Your task to perform on an android device: Empty the shopping cart on costco.com. Search for logitech g pro on costco.com, select the first entry, and add it to the cart. Image 0: 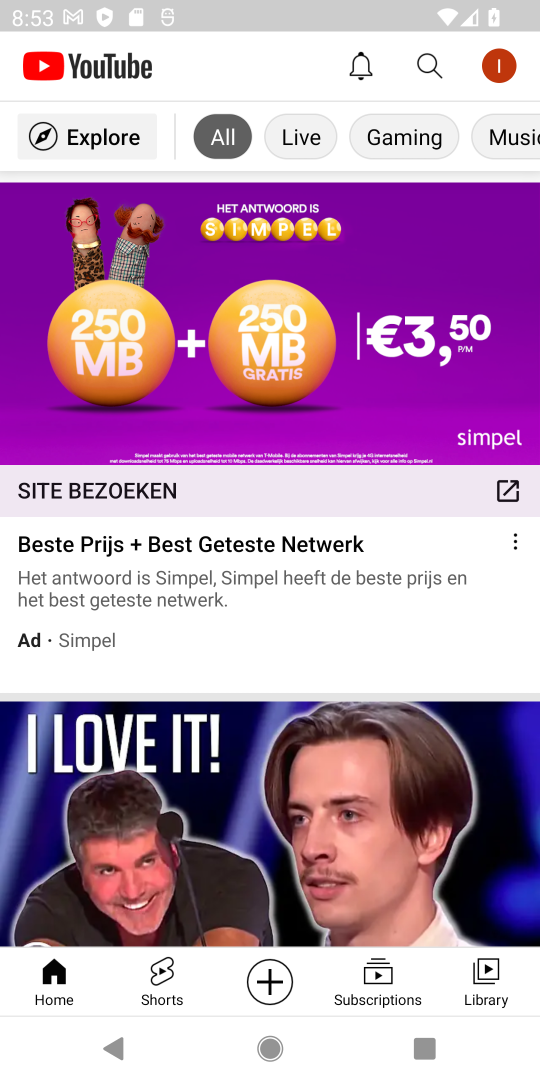
Step 0: press home button
Your task to perform on an android device: Empty the shopping cart on costco.com. Search for logitech g pro on costco.com, select the first entry, and add it to the cart. Image 1: 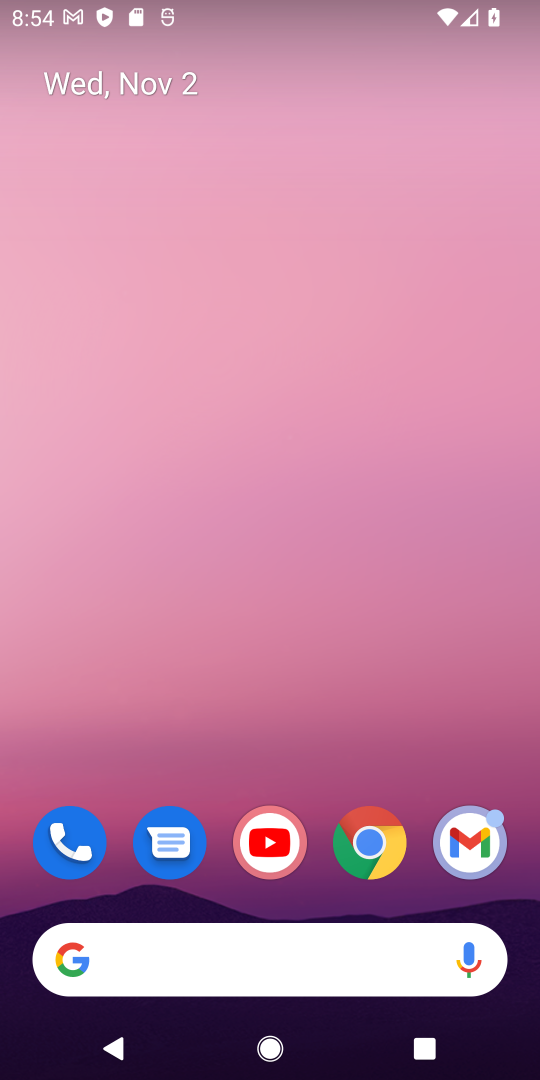
Step 1: drag from (210, 773) to (304, 159)
Your task to perform on an android device: Empty the shopping cart on costco.com. Search for logitech g pro on costco.com, select the first entry, and add it to the cart. Image 2: 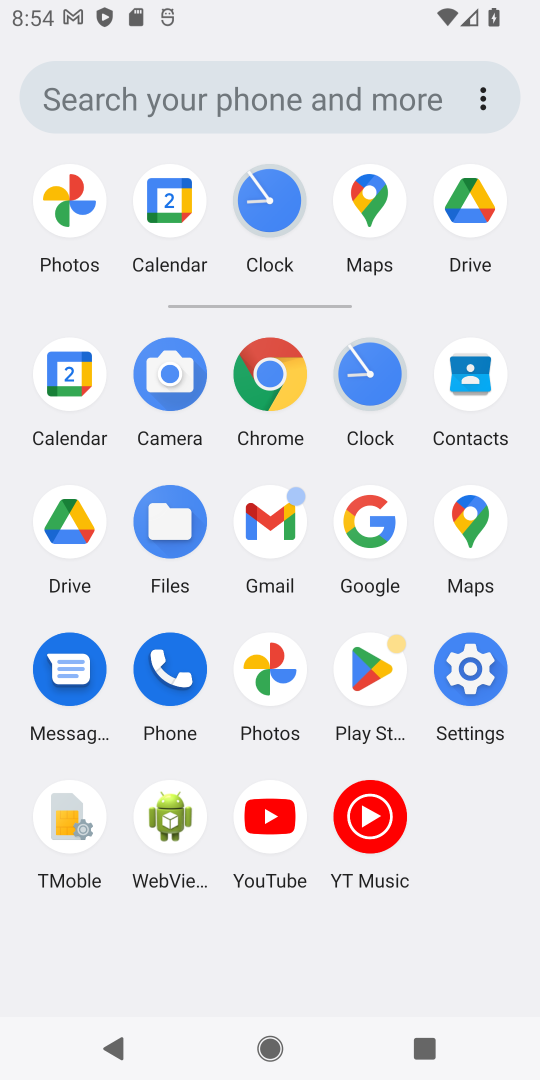
Step 2: click (359, 511)
Your task to perform on an android device: Empty the shopping cart on costco.com. Search for logitech g pro on costco.com, select the first entry, and add it to the cart. Image 3: 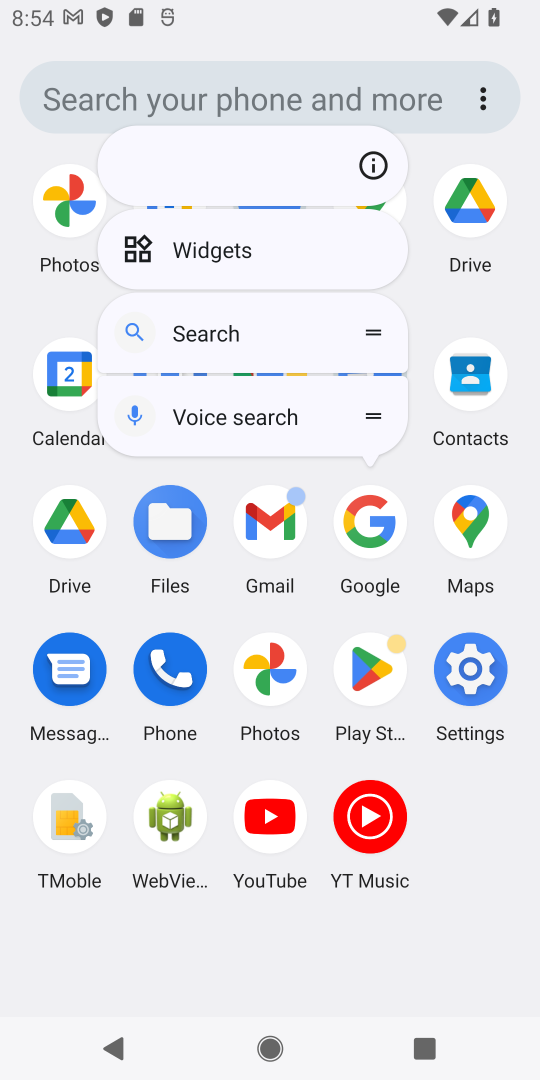
Step 3: click (373, 530)
Your task to perform on an android device: Empty the shopping cart on costco.com. Search for logitech g pro on costco.com, select the first entry, and add it to the cart. Image 4: 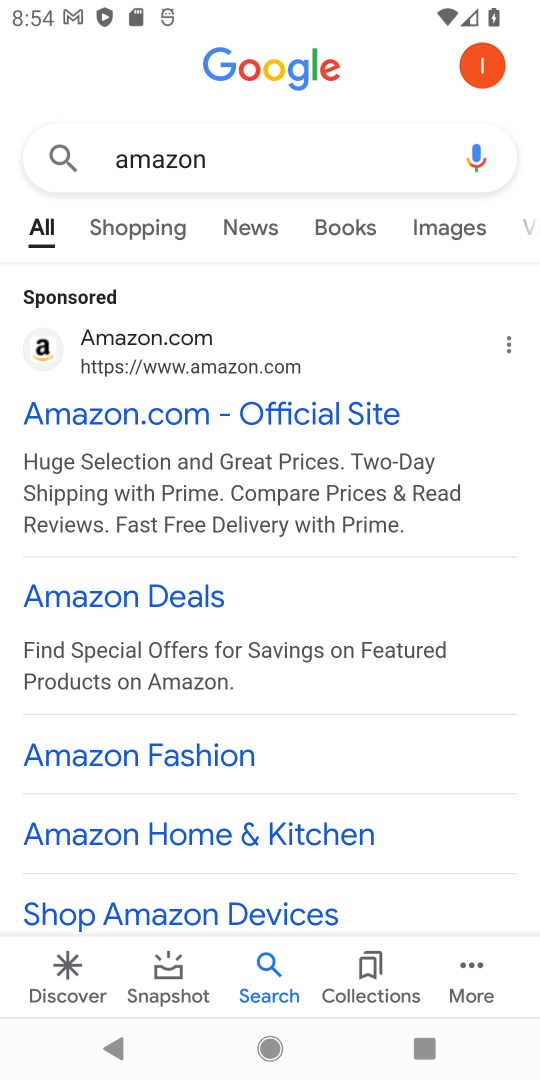
Step 4: click (236, 180)
Your task to perform on an android device: Empty the shopping cart on costco.com. Search for logitech g pro on costco.com, select the first entry, and add it to the cart. Image 5: 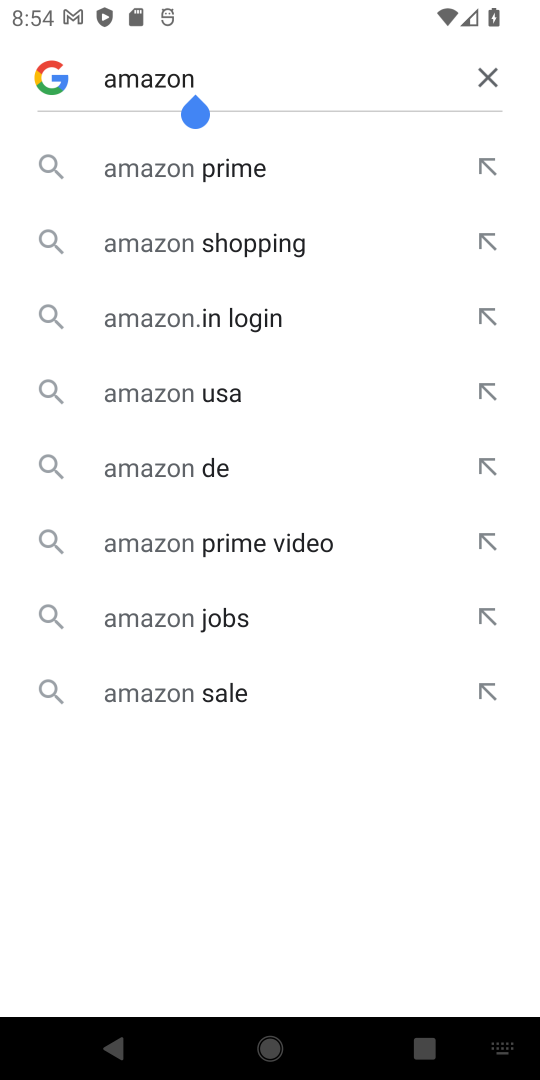
Step 5: click (471, 73)
Your task to perform on an android device: Empty the shopping cart on costco.com. Search for logitech g pro on costco.com, select the first entry, and add it to the cart. Image 6: 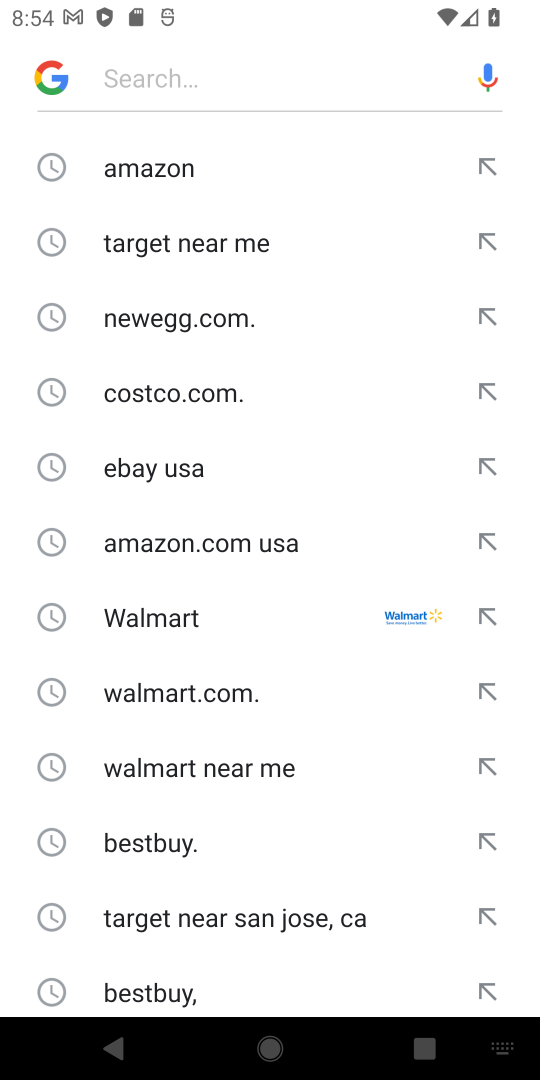
Step 6: click (157, 399)
Your task to perform on an android device: Empty the shopping cart on costco.com. Search for logitech g pro on costco.com, select the first entry, and add it to the cart. Image 7: 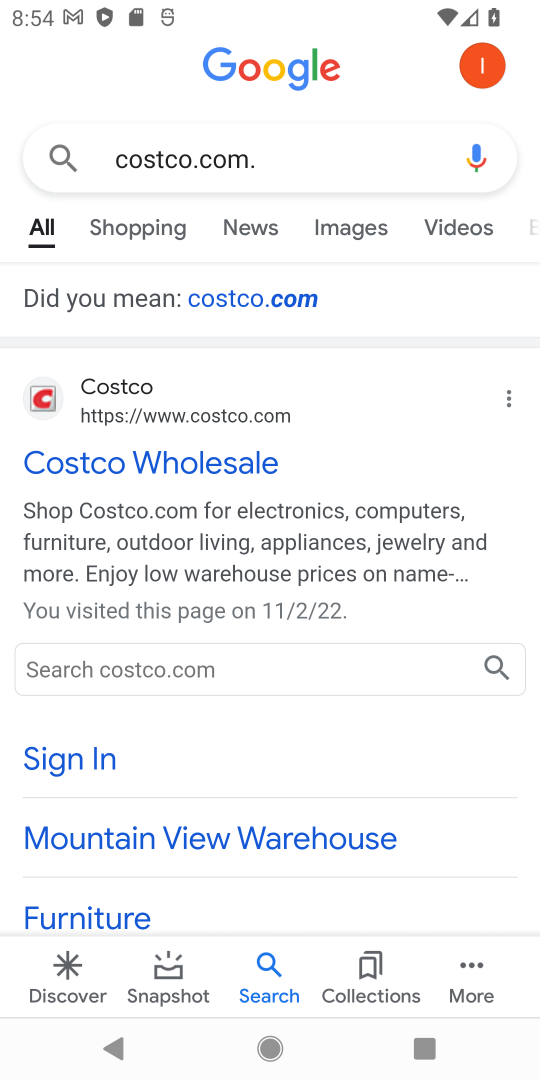
Step 7: click (51, 392)
Your task to perform on an android device: Empty the shopping cart on costco.com. Search for logitech g pro on costco.com, select the first entry, and add it to the cart. Image 8: 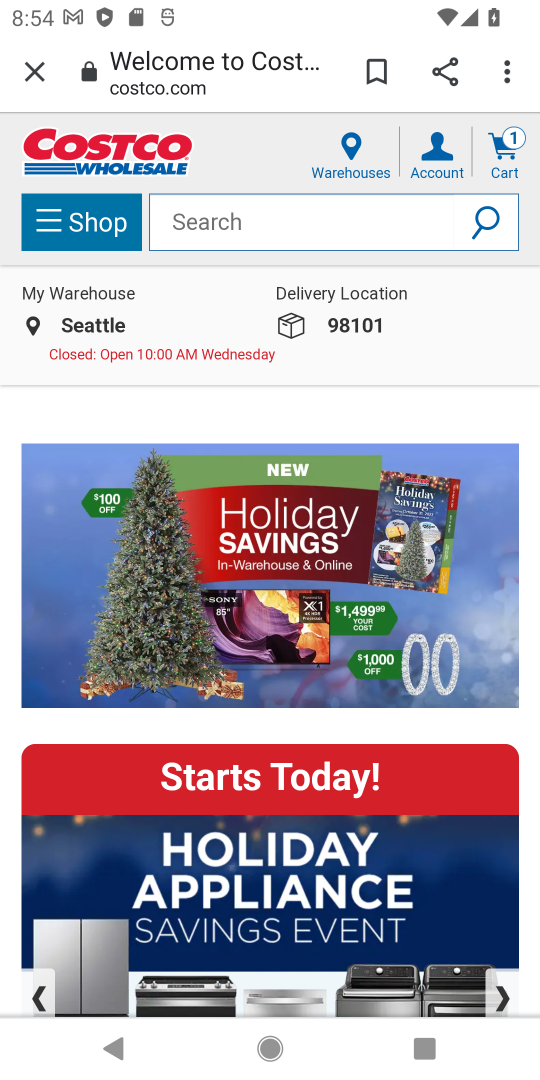
Step 8: click (214, 222)
Your task to perform on an android device: Empty the shopping cart on costco.com. Search for logitech g pro on costco.com, select the first entry, and add it to the cart. Image 9: 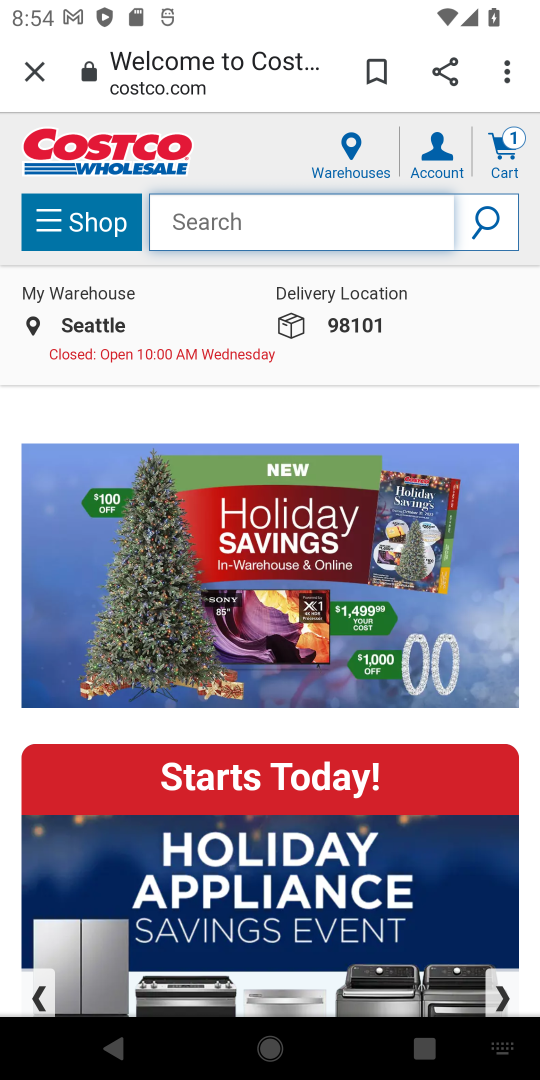
Step 9: type "ogitech g pro "
Your task to perform on an android device: Empty the shopping cart on costco.com. Search for logitech g pro on costco.com, select the first entry, and add it to the cart. Image 10: 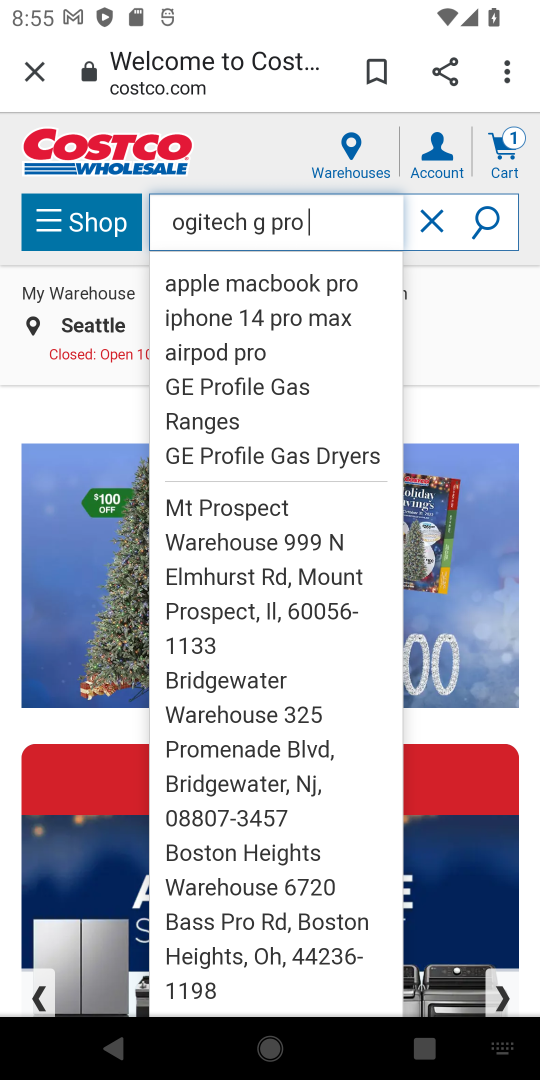
Step 10: click (474, 224)
Your task to perform on an android device: Empty the shopping cart on costco.com. Search for logitech g pro on costco.com, select the first entry, and add it to the cart. Image 11: 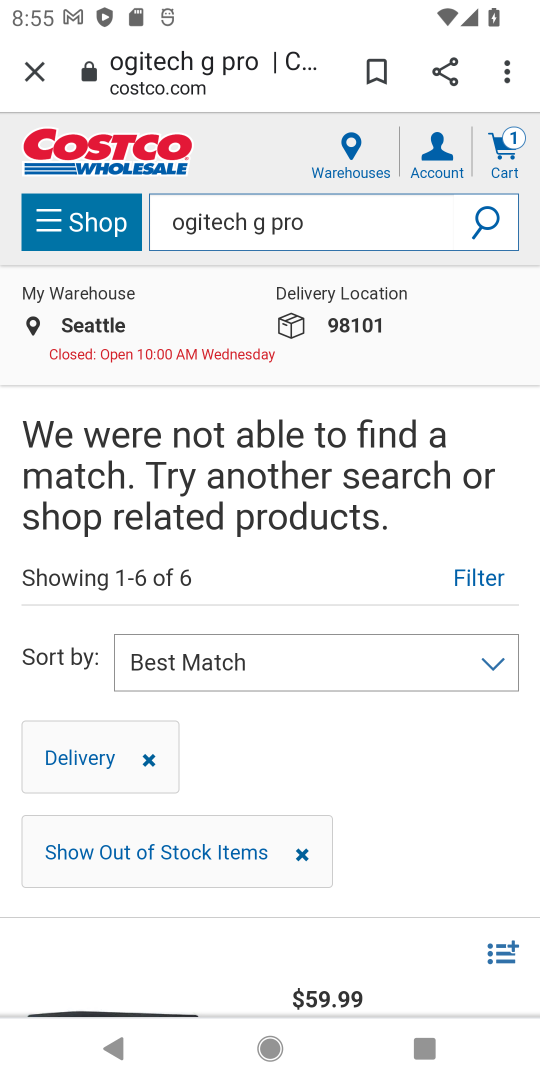
Step 11: click (474, 208)
Your task to perform on an android device: Empty the shopping cart on costco.com. Search for logitech g pro on costco.com, select the first entry, and add it to the cart. Image 12: 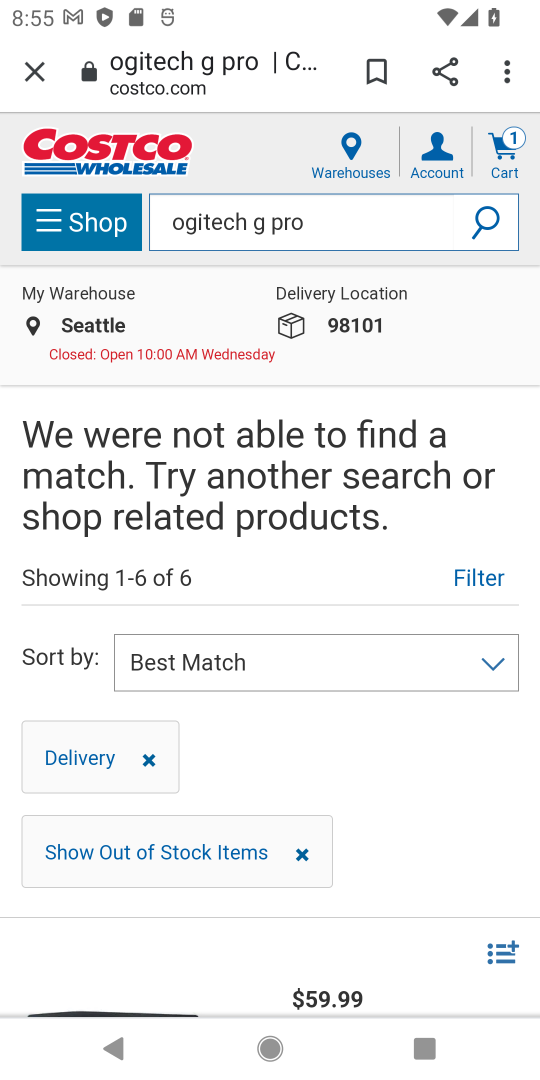
Step 12: click (357, 219)
Your task to perform on an android device: Empty the shopping cart on costco.com. Search for logitech g pro on costco.com, select the first entry, and add it to the cart. Image 13: 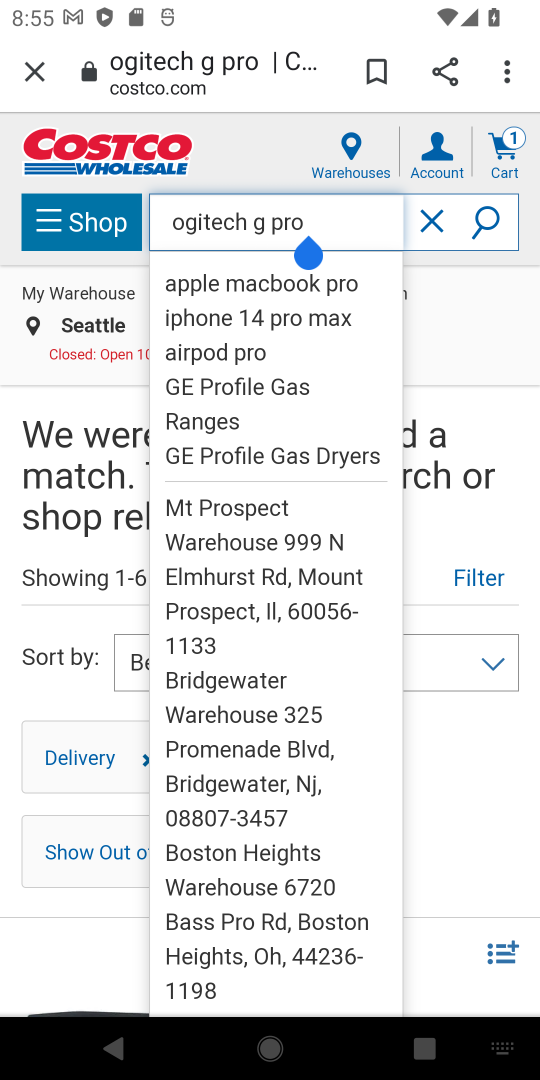
Step 13: click (420, 216)
Your task to perform on an android device: Empty the shopping cart on costco.com. Search for logitech g pro on costco.com, select the first entry, and add it to the cart. Image 14: 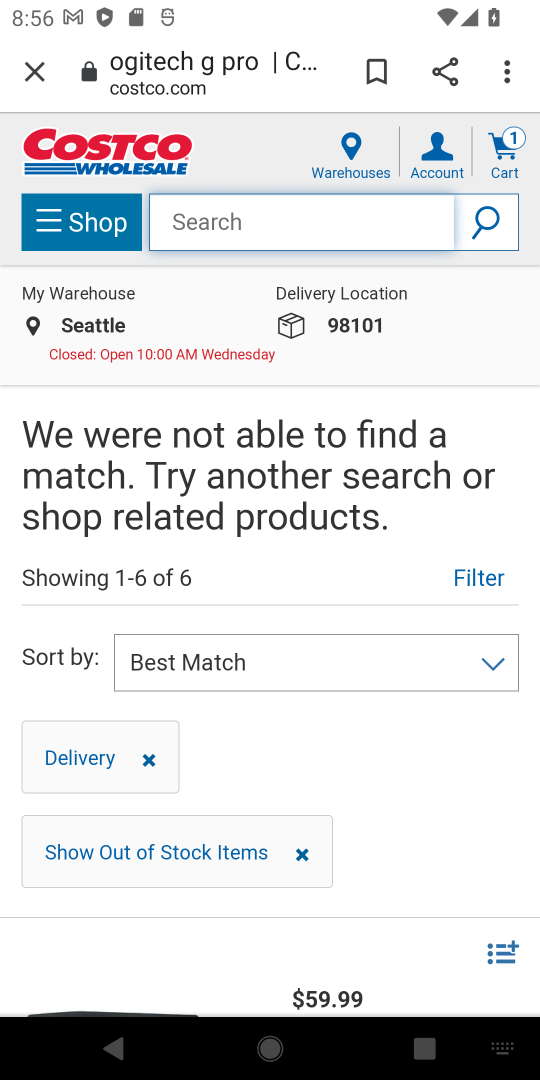
Step 14: click (229, 205)
Your task to perform on an android device: Empty the shopping cart on costco.com. Search for logitech g pro on costco.com, select the first entry, and add it to the cart. Image 15: 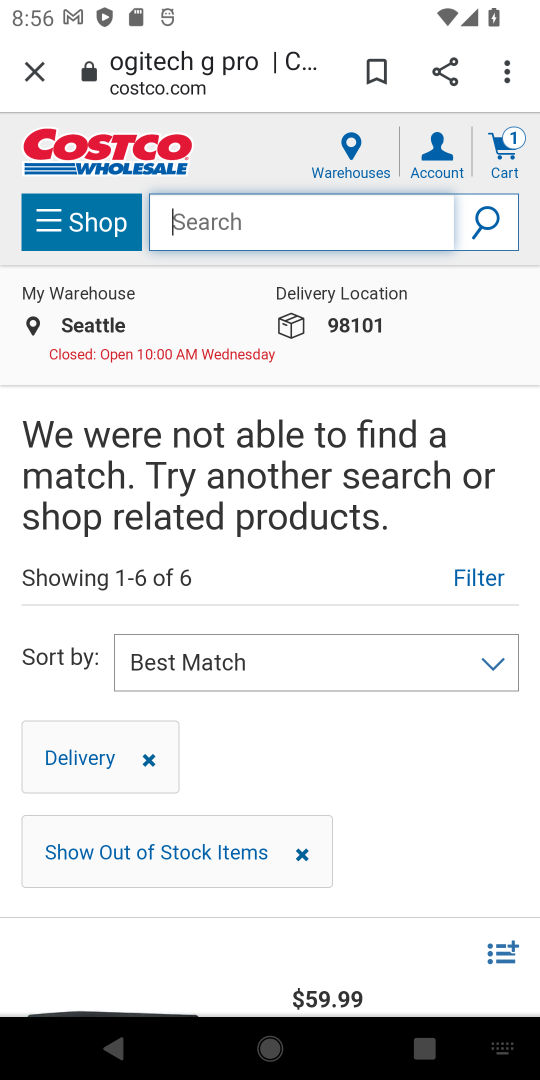
Step 15: type " logitech g pro "
Your task to perform on an android device: Empty the shopping cart on costco.com. Search for logitech g pro on costco.com, select the first entry, and add it to the cart. Image 16: 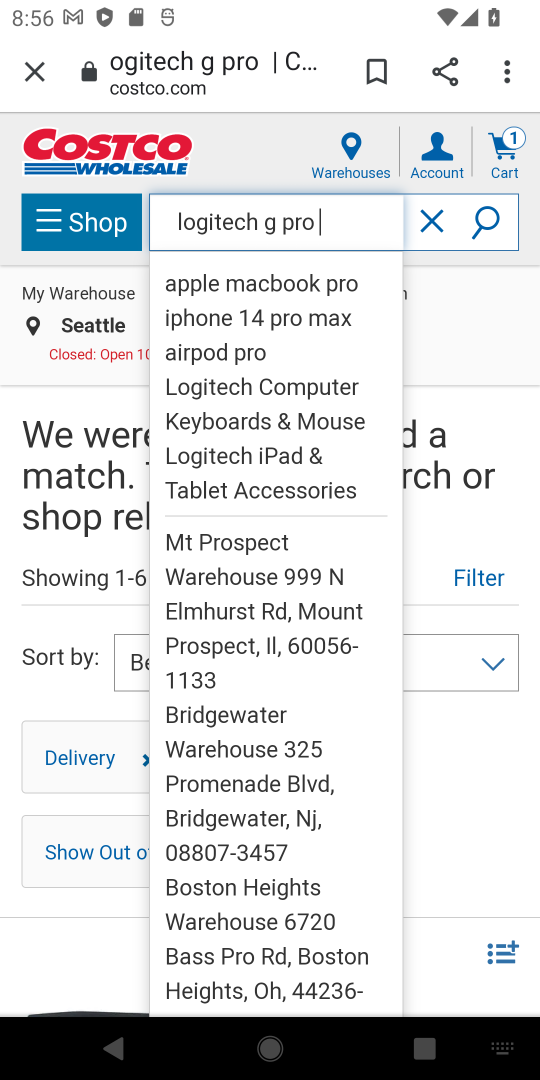
Step 16: click (234, 381)
Your task to perform on an android device: Empty the shopping cart on costco.com. Search for logitech g pro on costco.com, select the first entry, and add it to the cart. Image 17: 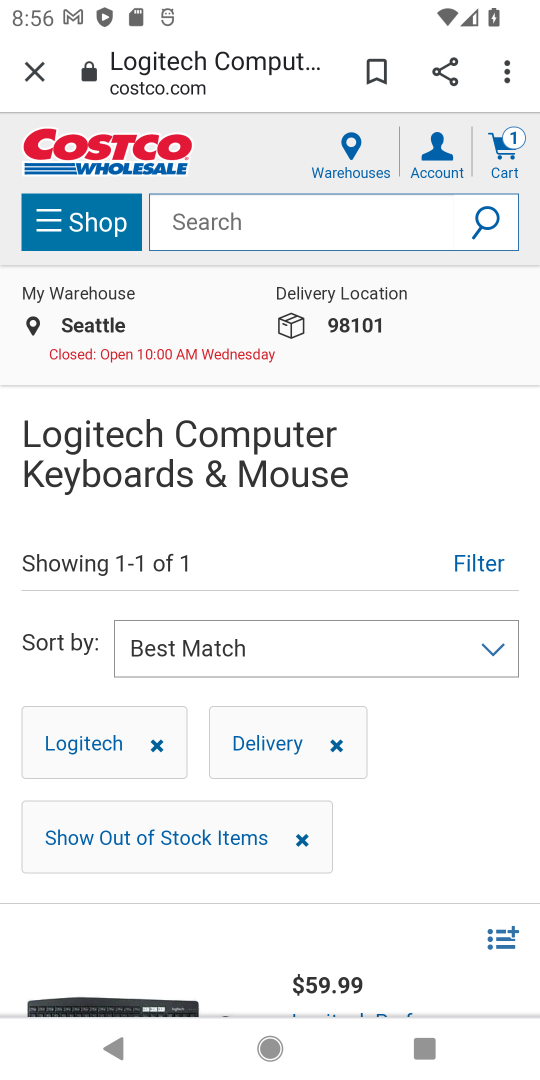
Step 17: drag from (307, 808) to (363, 412)
Your task to perform on an android device: Empty the shopping cart on costco.com. Search for logitech g pro on costco.com, select the first entry, and add it to the cart. Image 18: 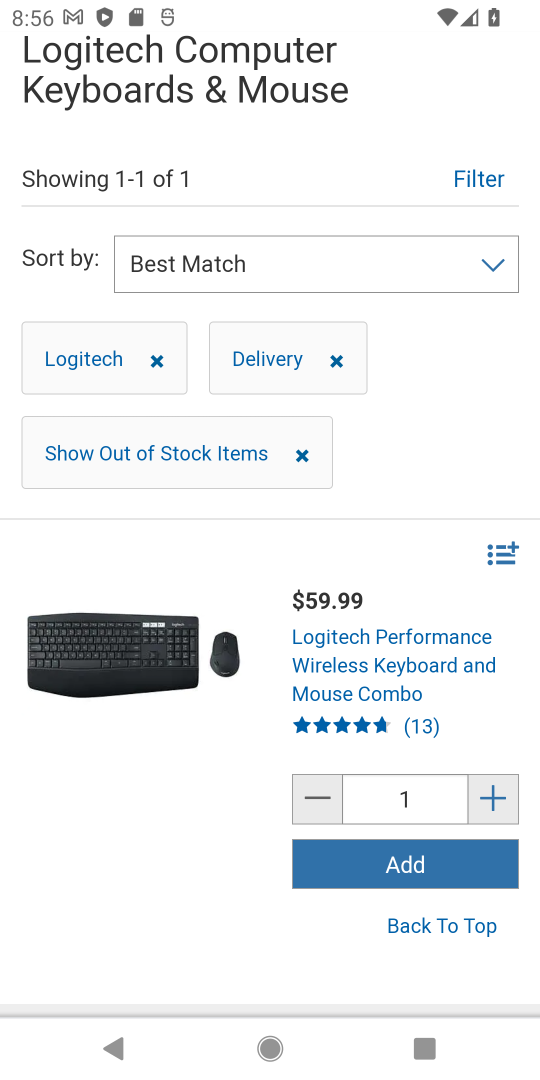
Step 18: click (411, 879)
Your task to perform on an android device: Empty the shopping cart on costco.com. Search for logitech g pro on costco.com, select the first entry, and add it to the cart. Image 19: 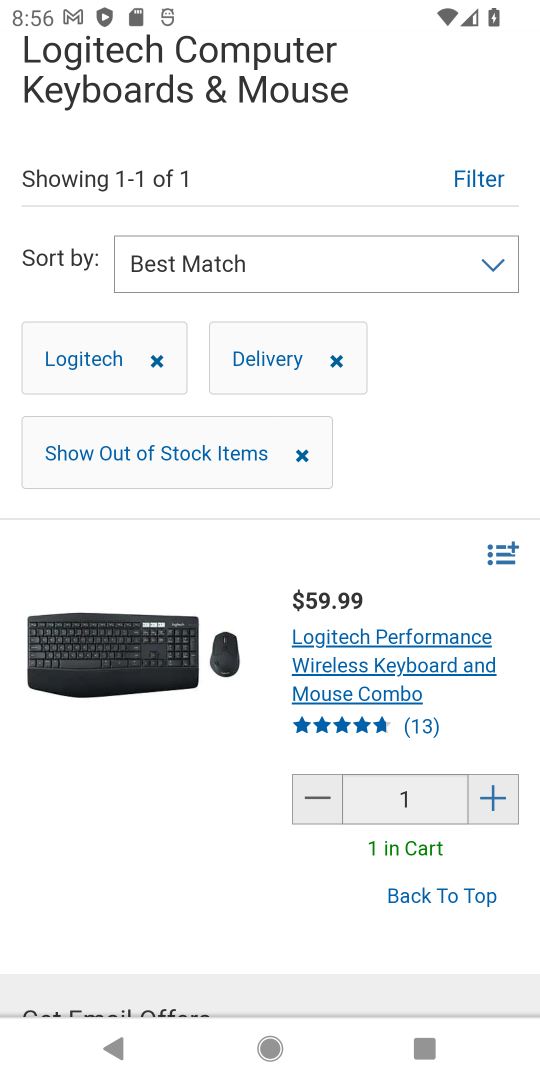
Step 19: task complete